Your task to perform on an android device: turn off picture-in-picture Image 0: 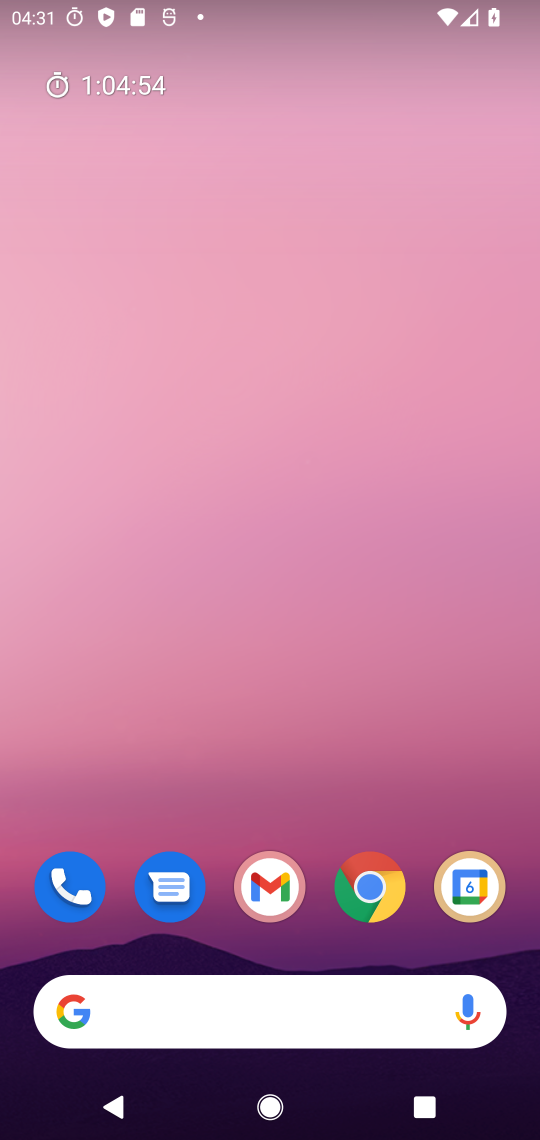
Step 0: drag from (416, 721) to (398, 212)
Your task to perform on an android device: turn off picture-in-picture Image 1: 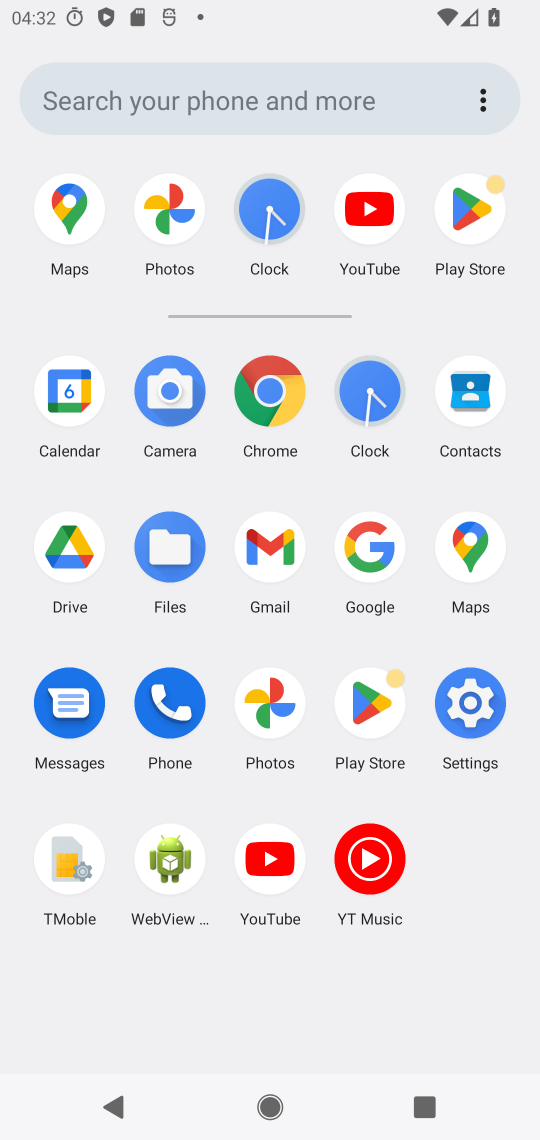
Step 1: click (468, 719)
Your task to perform on an android device: turn off picture-in-picture Image 2: 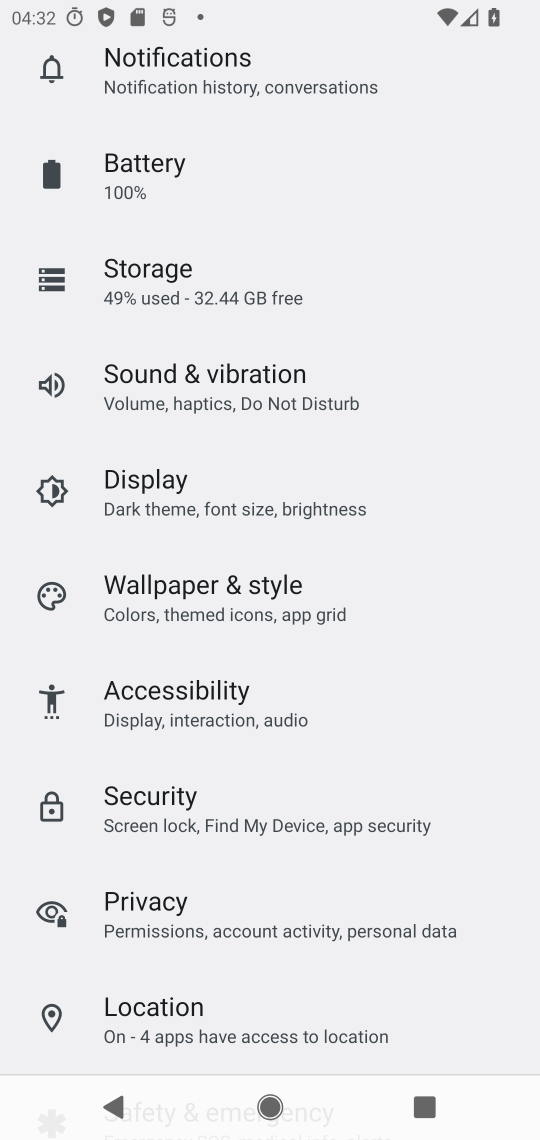
Step 2: drag from (461, 657) to (451, 482)
Your task to perform on an android device: turn off picture-in-picture Image 3: 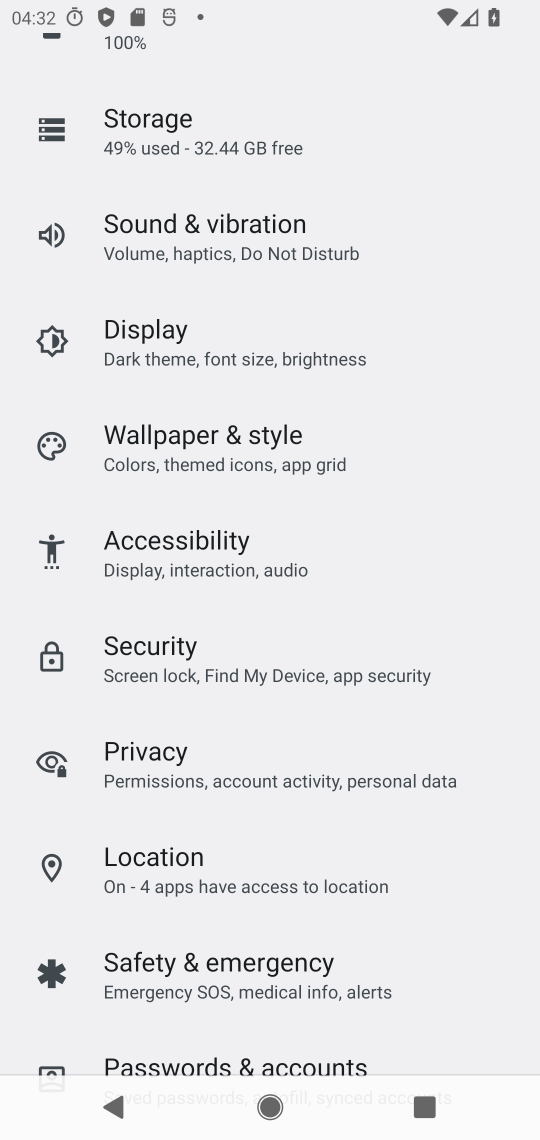
Step 3: drag from (483, 769) to (461, 465)
Your task to perform on an android device: turn off picture-in-picture Image 4: 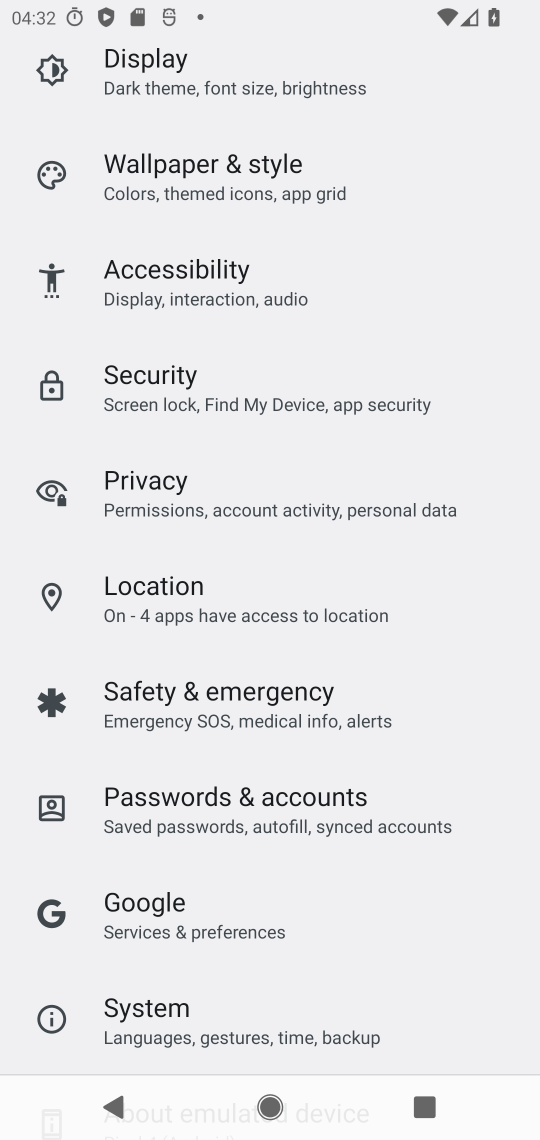
Step 4: drag from (482, 719) to (492, 445)
Your task to perform on an android device: turn off picture-in-picture Image 5: 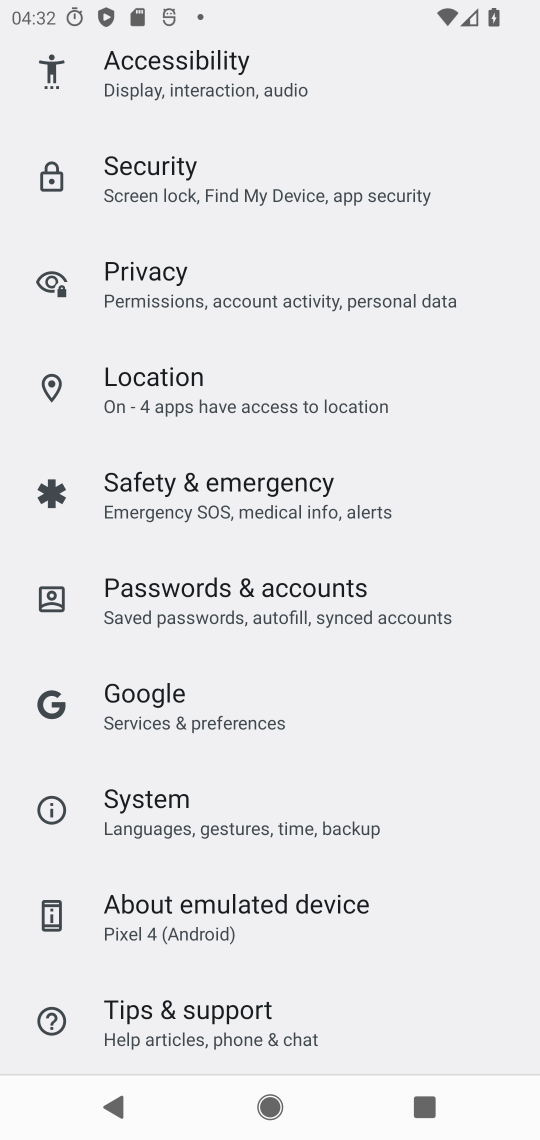
Step 5: drag from (473, 795) to (441, 587)
Your task to perform on an android device: turn off picture-in-picture Image 6: 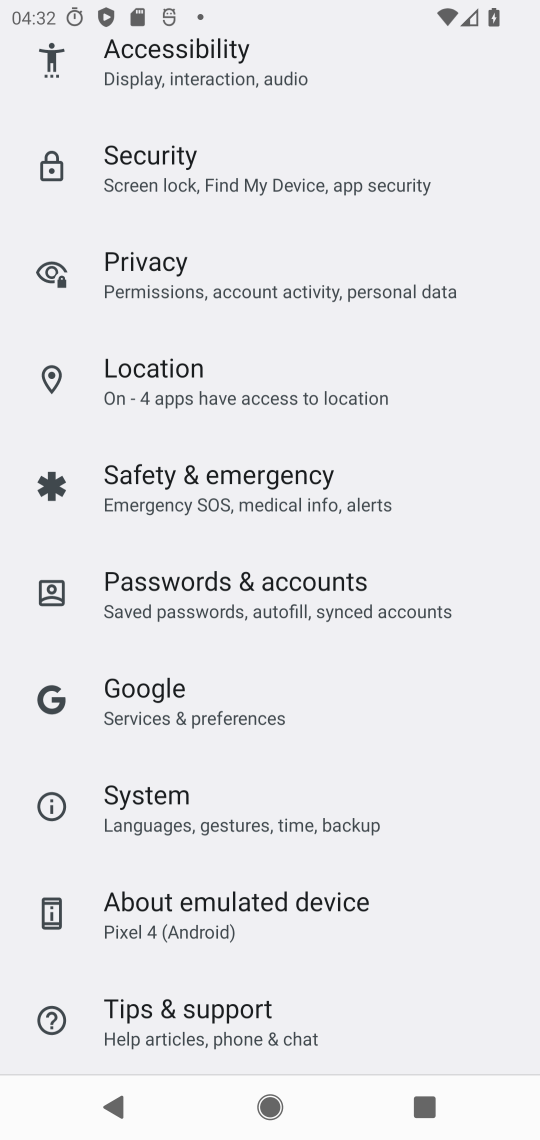
Step 6: drag from (450, 460) to (467, 620)
Your task to perform on an android device: turn off picture-in-picture Image 7: 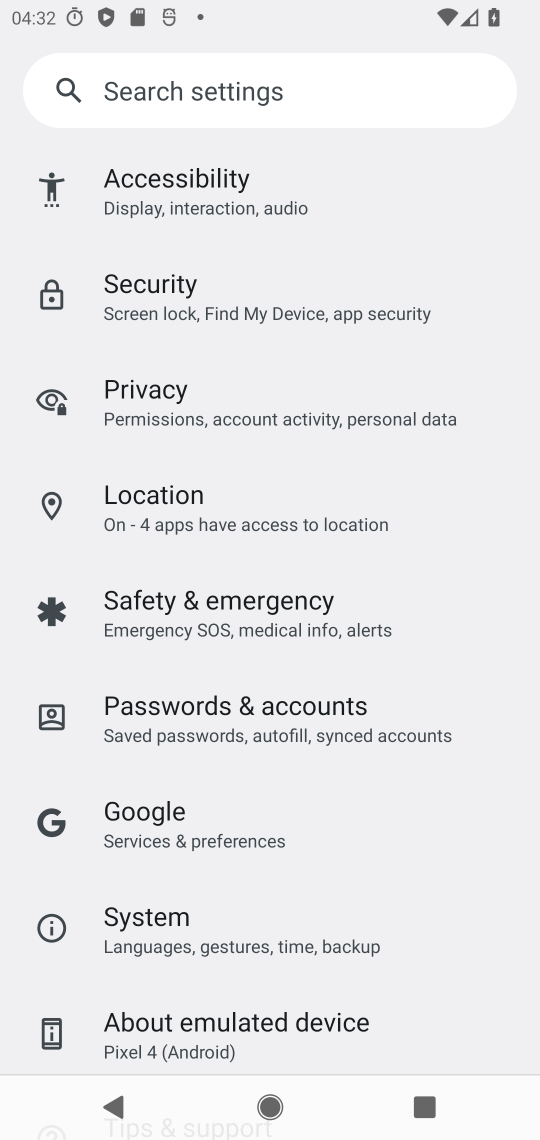
Step 7: drag from (469, 382) to (474, 535)
Your task to perform on an android device: turn off picture-in-picture Image 8: 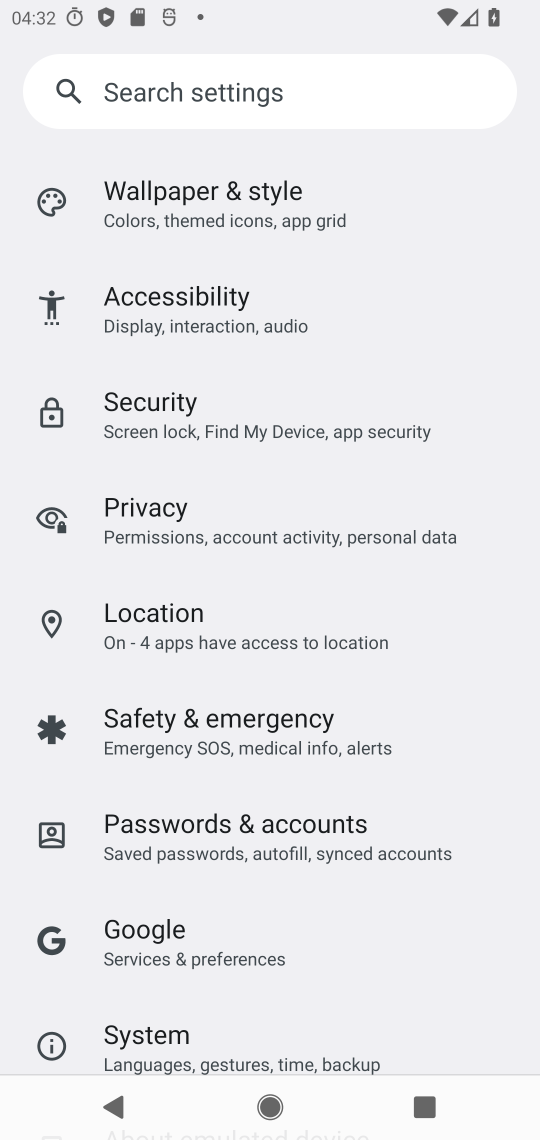
Step 8: drag from (476, 342) to (479, 517)
Your task to perform on an android device: turn off picture-in-picture Image 9: 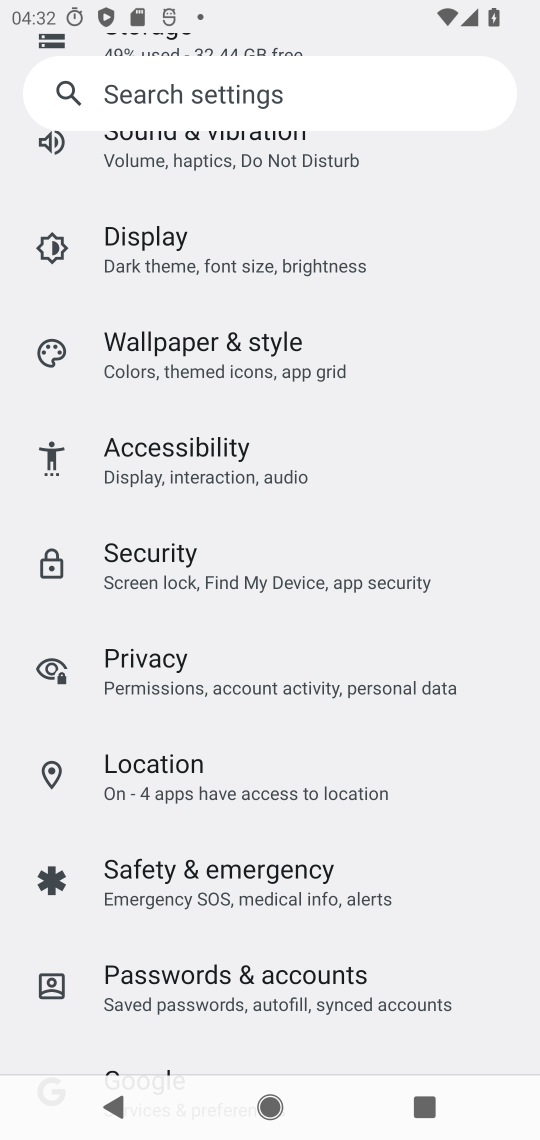
Step 9: drag from (472, 337) to (476, 504)
Your task to perform on an android device: turn off picture-in-picture Image 10: 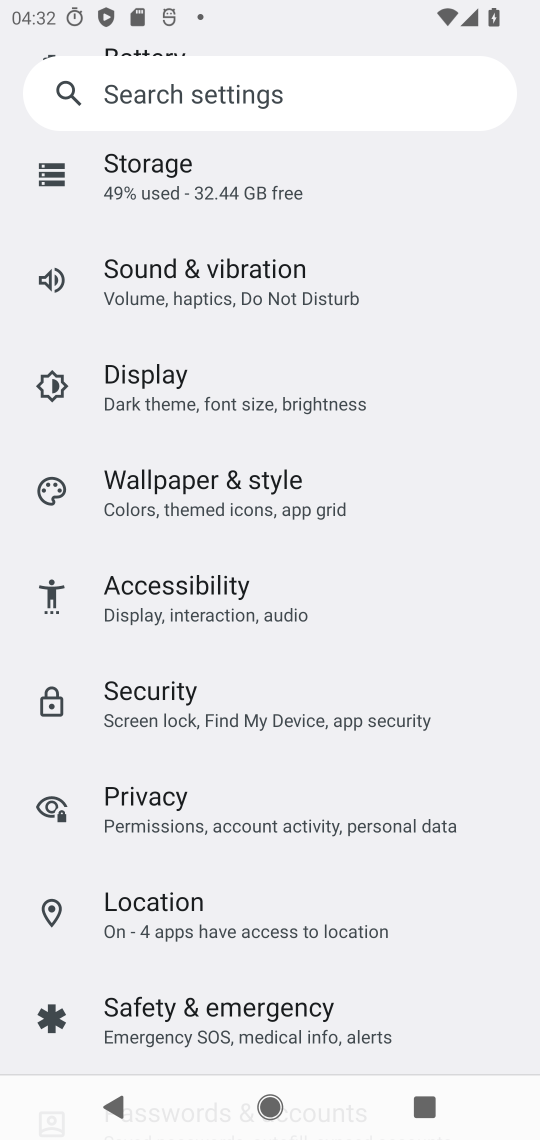
Step 10: drag from (466, 257) to (464, 461)
Your task to perform on an android device: turn off picture-in-picture Image 11: 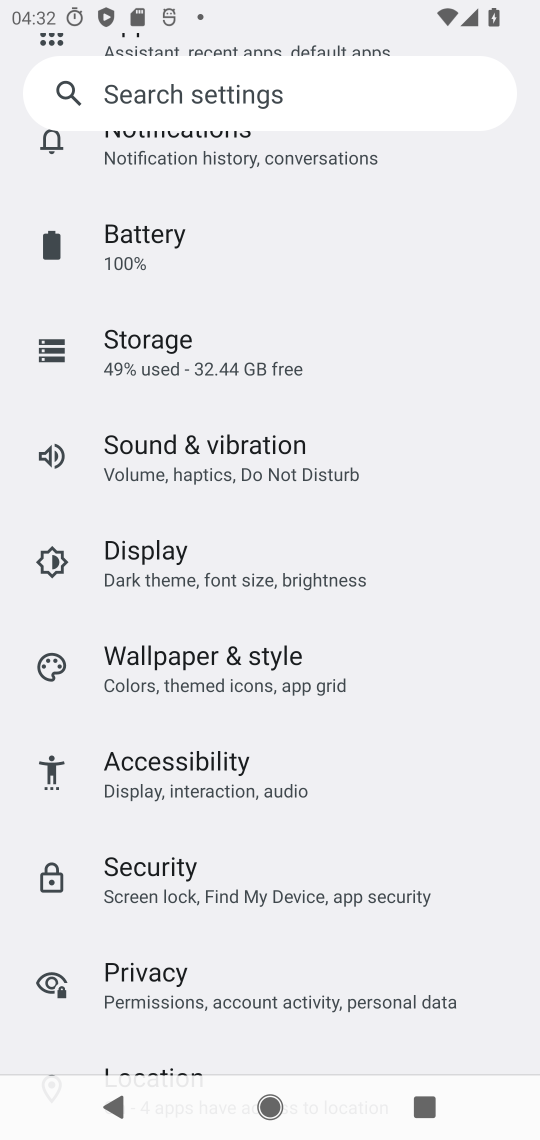
Step 11: drag from (471, 228) to (469, 448)
Your task to perform on an android device: turn off picture-in-picture Image 12: 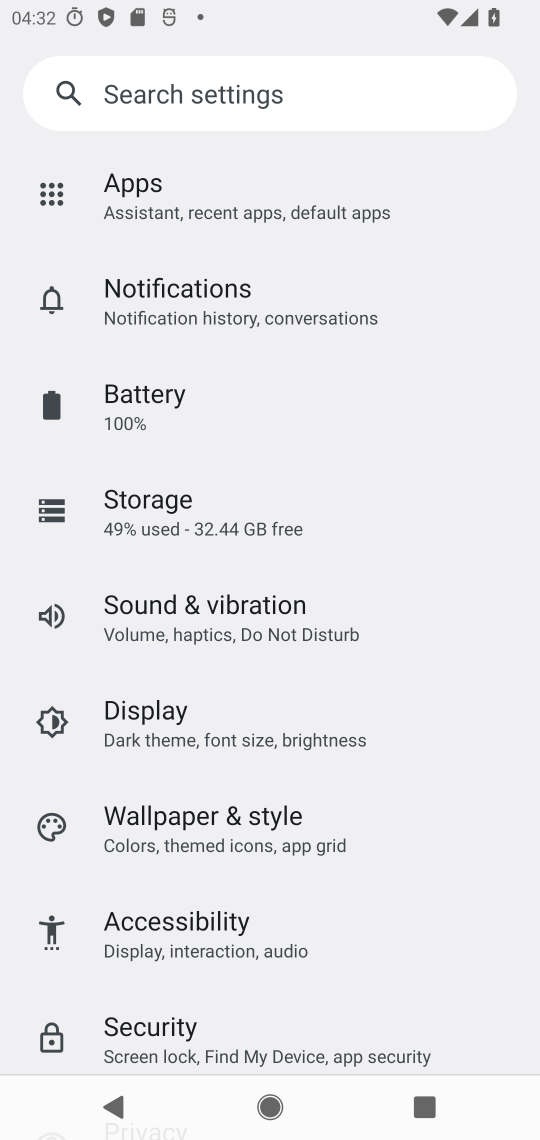
Step 12: drag from (453, 290) to (450, 444)
Your task to perform on an android device: turn off picture-in-picture Image 13: 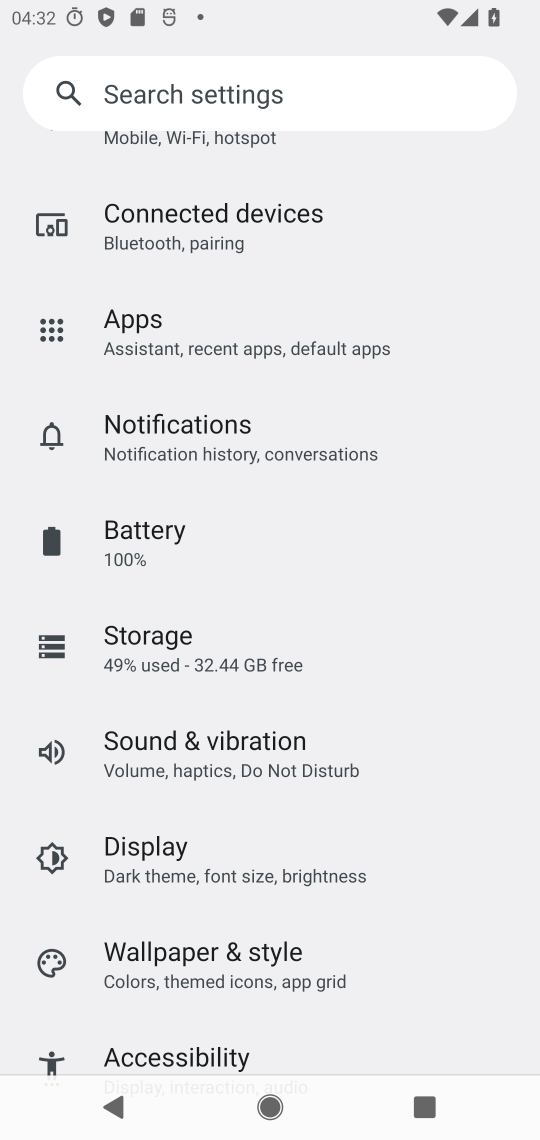
Step 13: click (398, 320)
Your task to perform on an android device: turn off picture-in-picture Image 14: 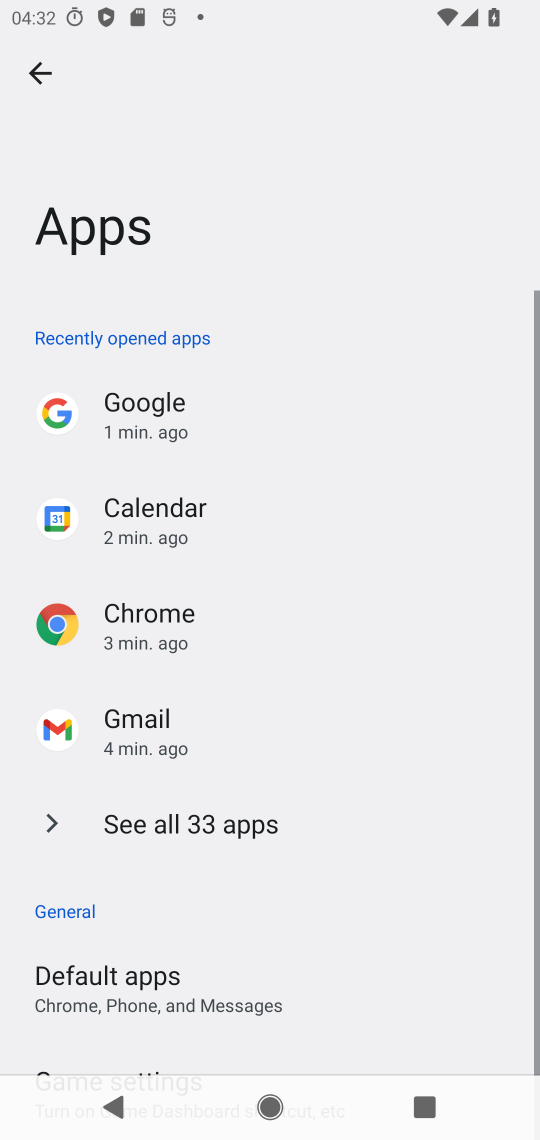
Step 14: drag from (387, 582) to (384, 407)
Your task to perform on an android device: turn off picture-in-picture Image 15: 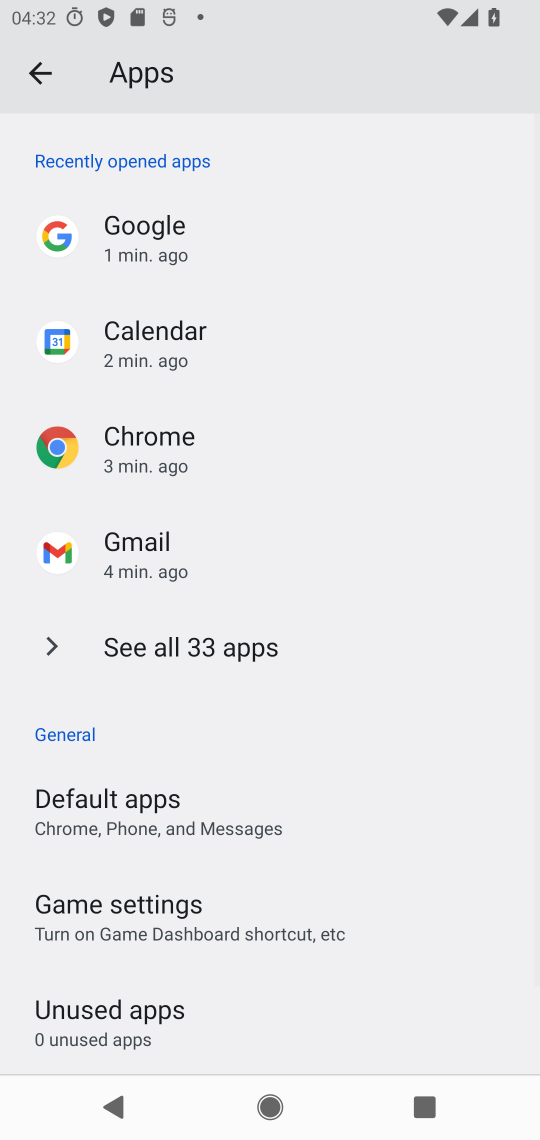
Step 15: drag from (388, 687) to (391, 507)
Your task to perform on an android device: turn off picture-in-picture Image 16: 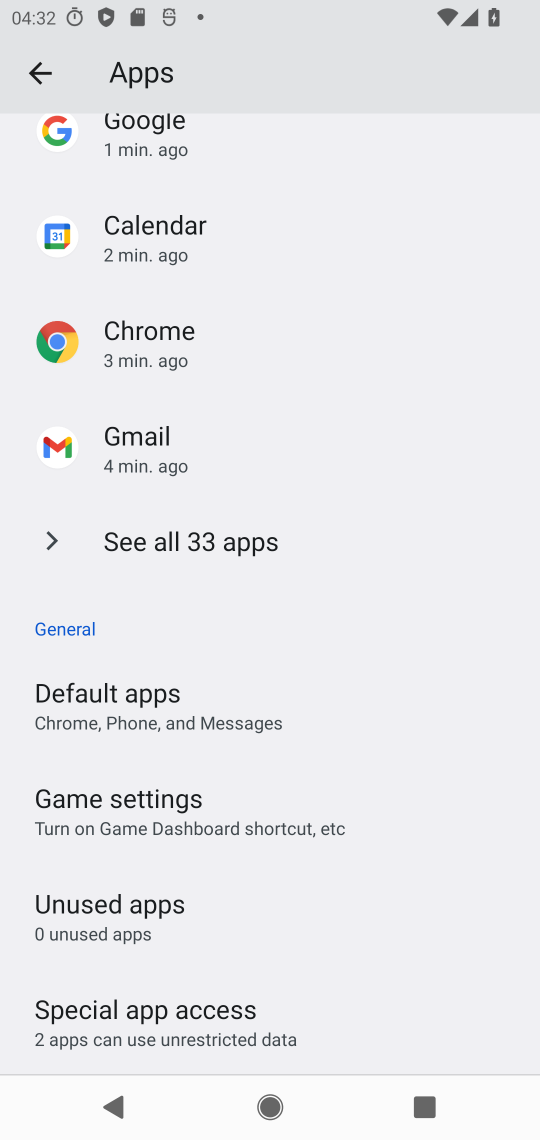
Step 16: click (390, 1004)
Your task to perform on an android device: turn off picture-in-picture Image 17: 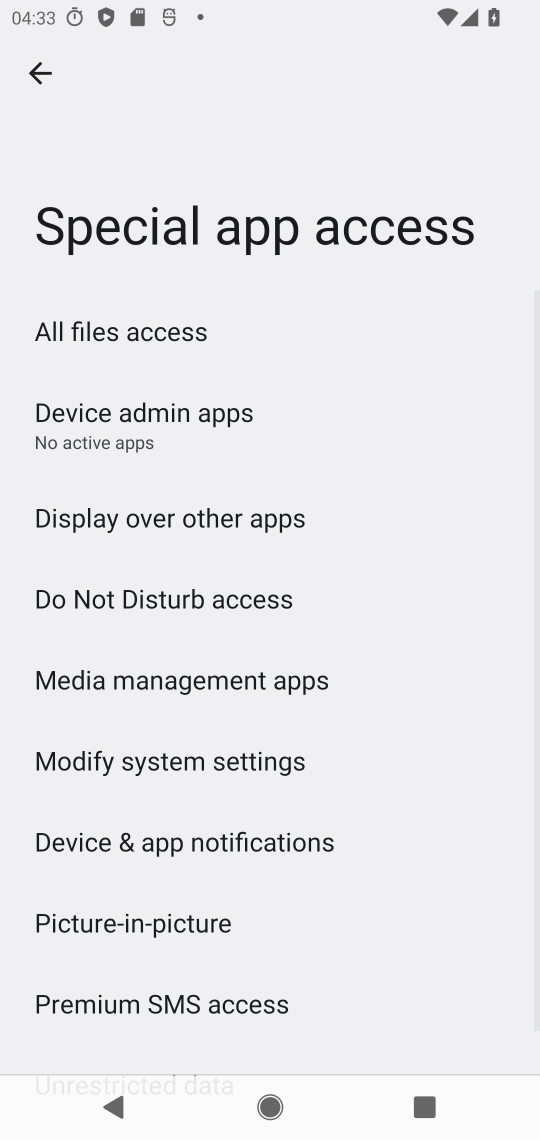
Step 17: drag from (421, 855) to (431, 637)
Your task to perform on an android device: turn off picture-in-picture Image 18: 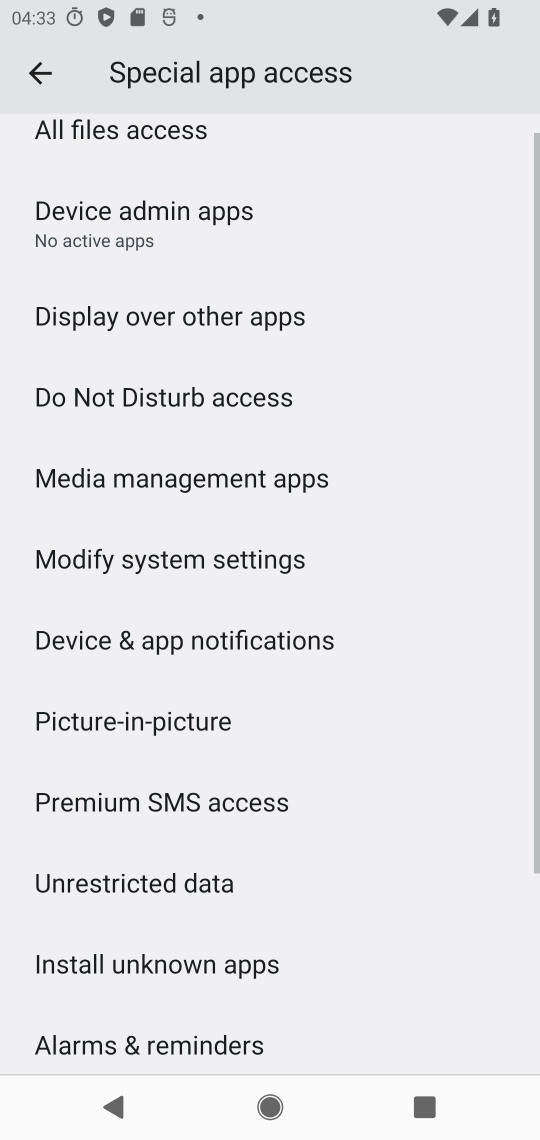
Step 18: drag from (400, 819) to (425, 542)
Your task to perform on an android device: turn off picture-in-picture Image 19: 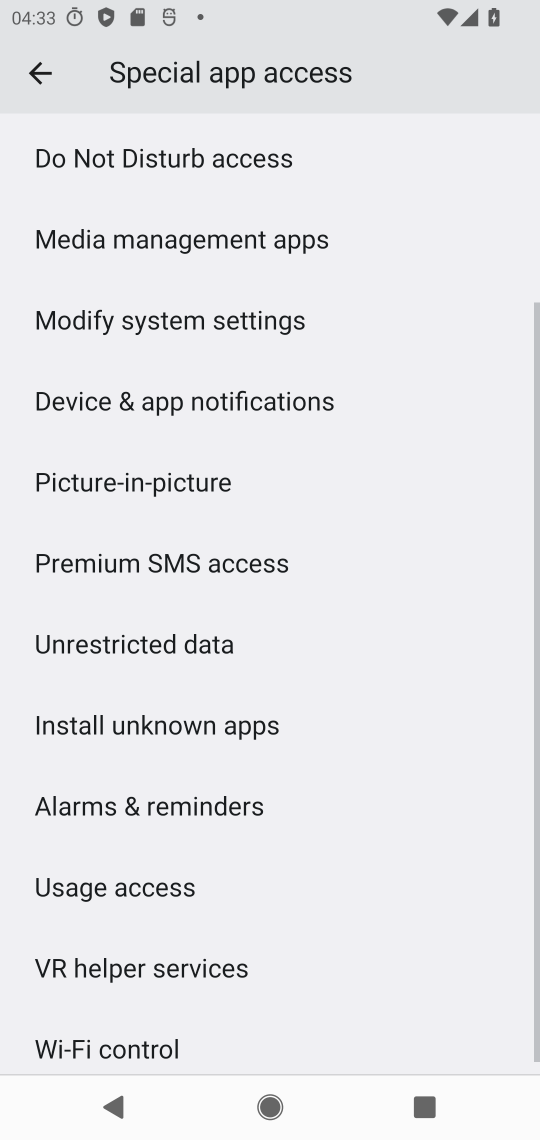
Step 19: click (274, 467)
Your task to perform on an android device: turn off picture-in-picture Image 20: 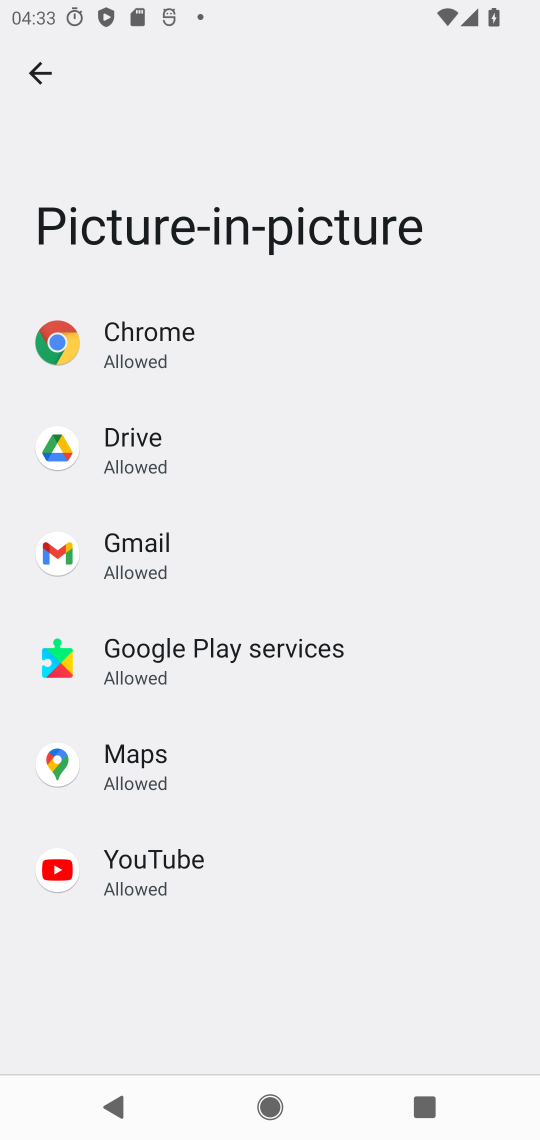
Step 20: click (228, 885)
Your task to perform on an android device: turn off picture-in-picture Image 21: 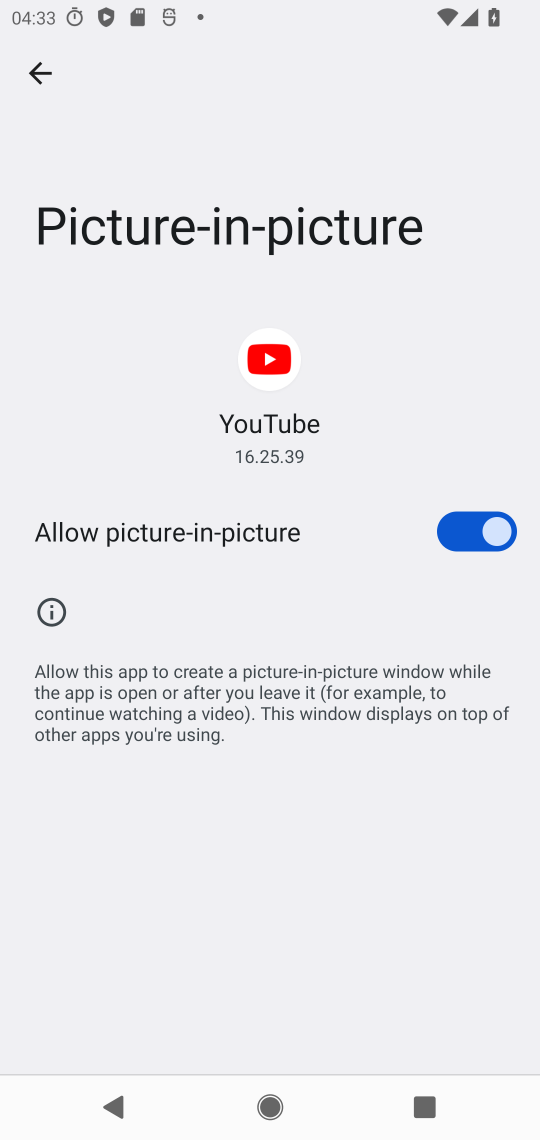
Step 21: click (459, 548)
Your task to perform on an android device: turn off picture-in-picture Image 22: 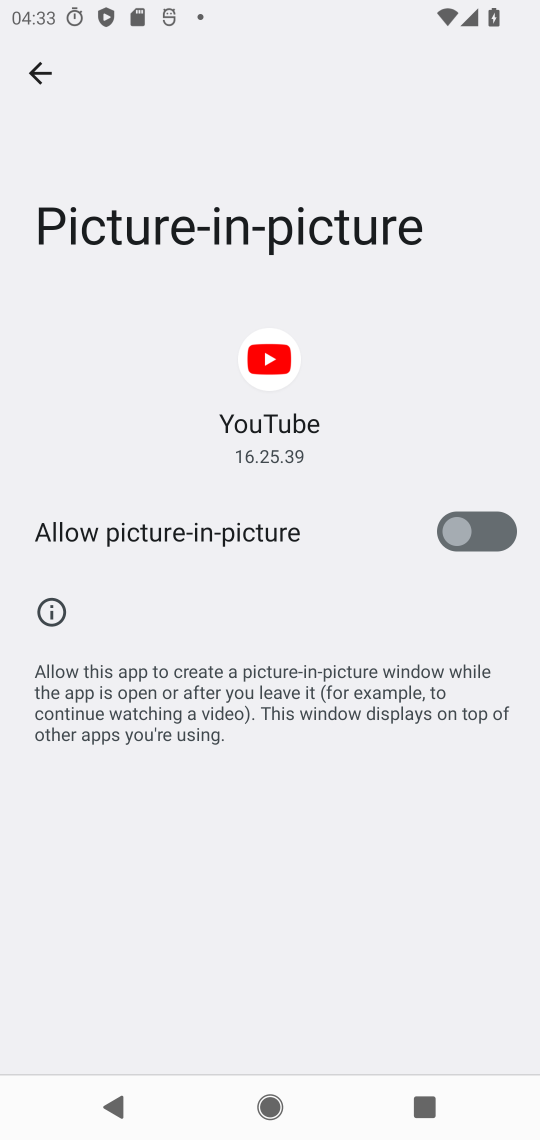
Step 22: task complete